Your task to perform on an android device: turn on sleep mode Image 0: 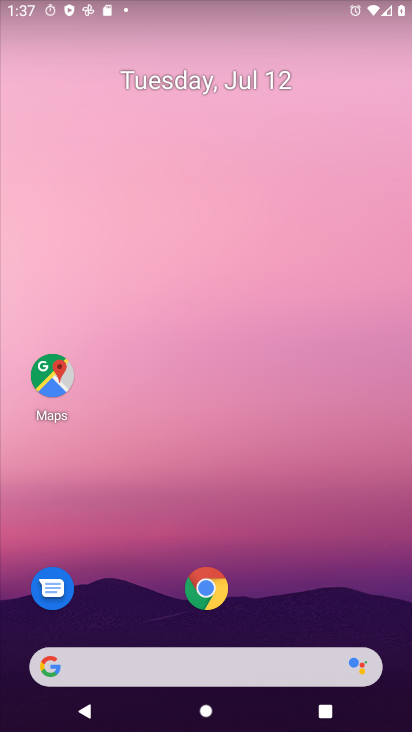
Step 0: drag from (203, 666) to (296, 90)
Your task to perform on an android device: turn on sleep mode Image 1: 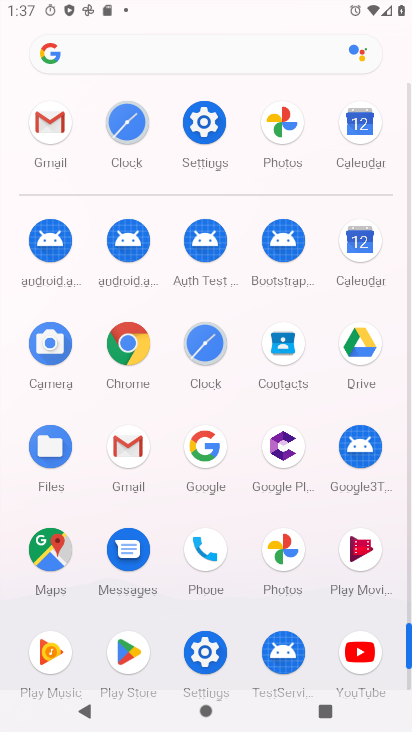
Step 1: click (203, 120)
Your task to perform on an android device: turn on sleep mode Image 2: 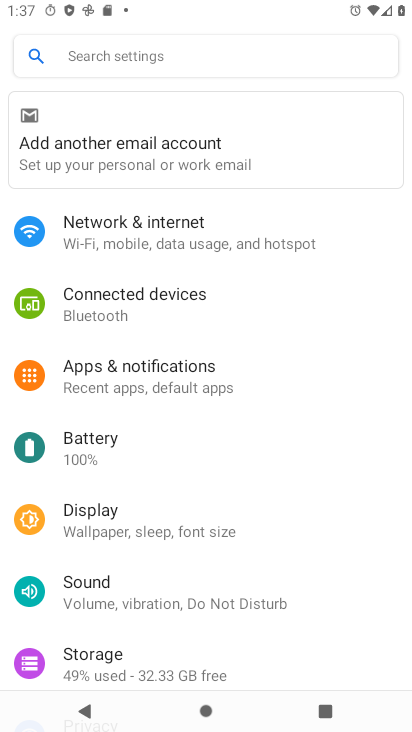
Step 2: click (148, 528)
Your task to perform on an android device: turn on sleep mode Image 3: 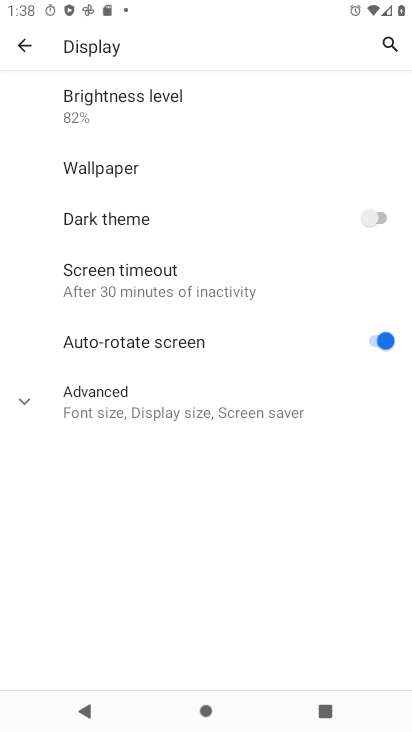
Step 3: task complete